Your task to perform on an android device: Play the last video I watched on Youtube Image 0: 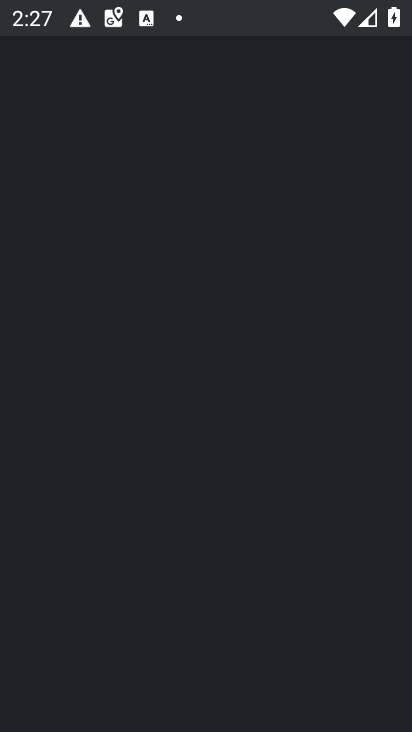
Step 0: press home button
Your task to perform on an android device: Play the last video I watched on Youtube Image 1: 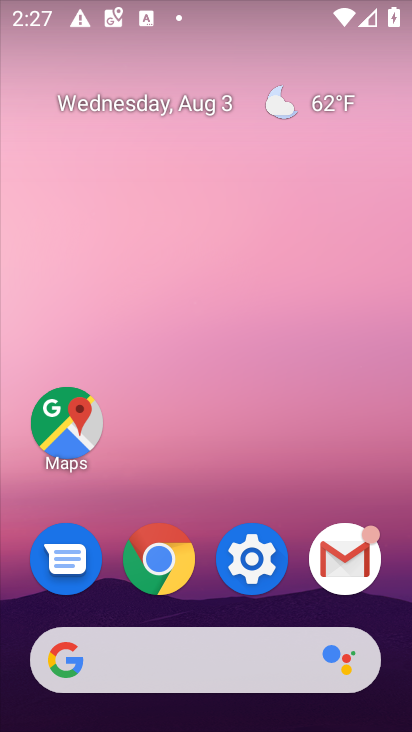
Step 1: drag from (241, 682) to (83, 145)
Your task to perform on an android device: Play the last video I watched on Youtube Image 2: 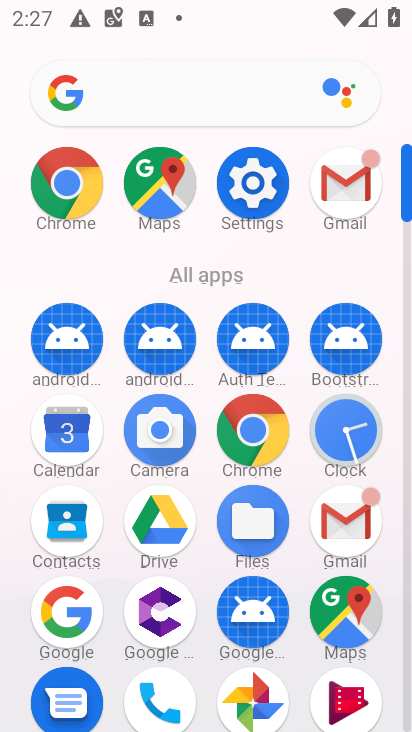
Step 2: drag from (209, 562) to (95, 173)
Your task to perform on an android device: Play the last video I watched on Youtube Image 3: 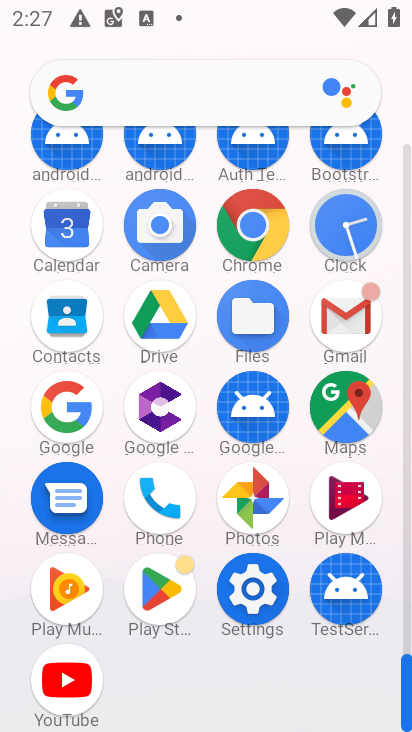
Step 3: click (45, 684)
Your task to perform on an android device: Play the last video I watched on Youtube Image 4: 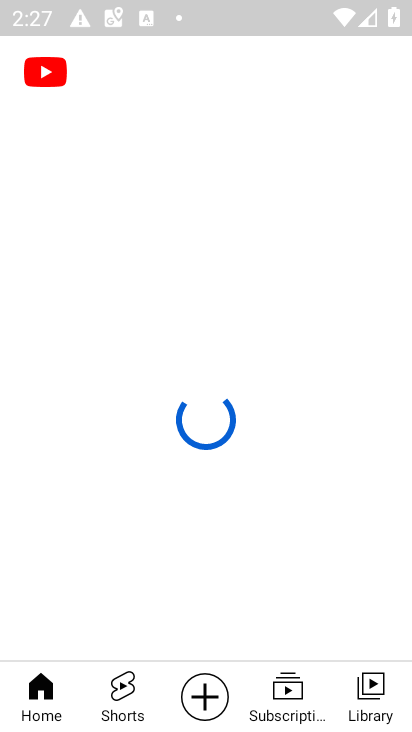
Step 4: click (365, 702)
Your task to perform on an android device: Play the last video I watched on Youtube Image 5: 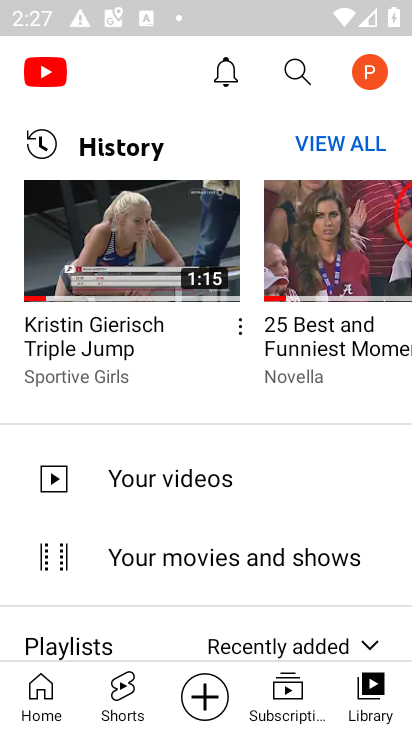
Step 5: click (109, 234)
Your task to perform on an android device: Play the last video I watched on Youtube Image 6: 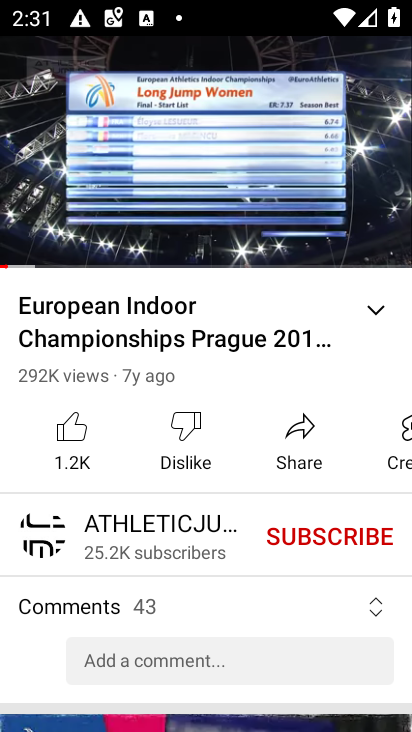
Step 6: task complete